Your task to perform on an android device: open a new tab in the chrome app Image 0: 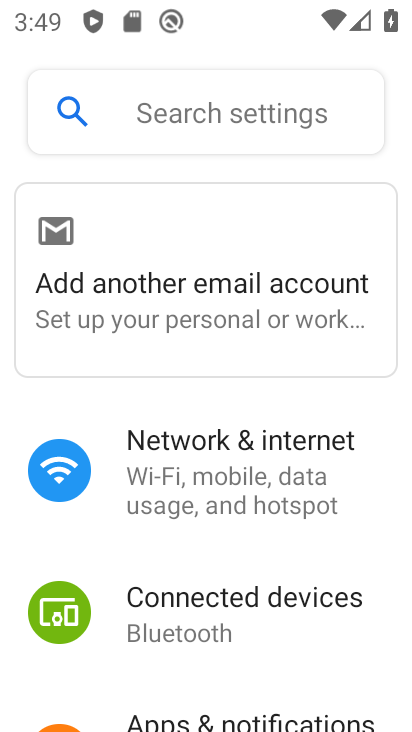
Step 0: press home button
Your task to perform on an android device: open a new tab in the chrome app Image 1: 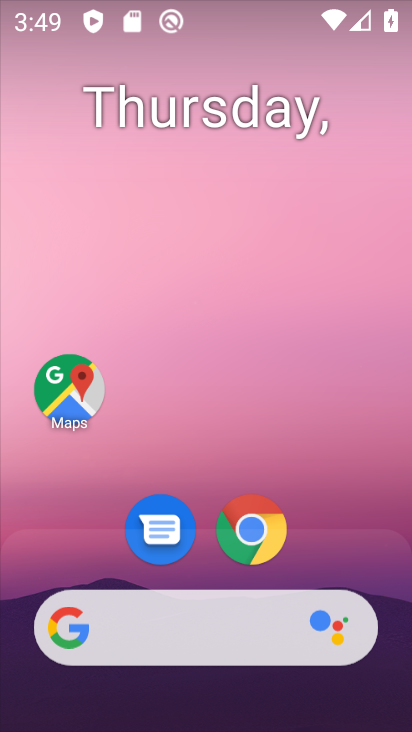
Step 1: click (246, 530)
Your task to perform on an android device: open a new tab in the chrome app Image 2: 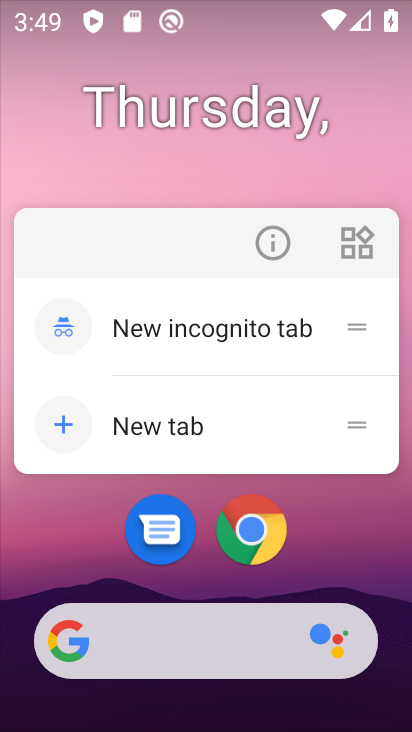
Step 2: click (255, 529)
Your task to perform on an android device: open a new tab in the chrome app Image 3: 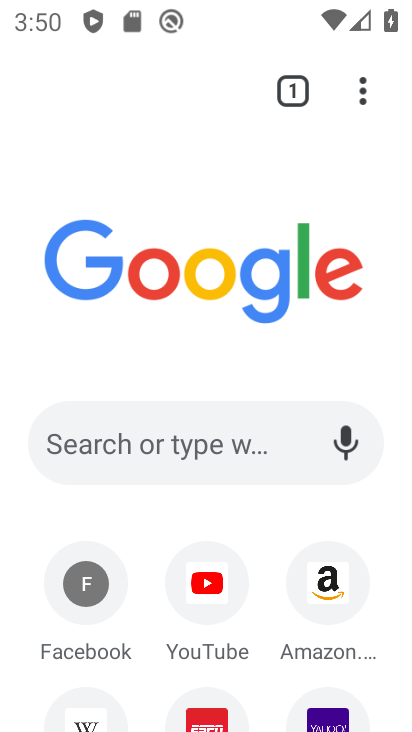
Step 3: task complete